Your task to perform on an android device: Go to display settings Image 0: 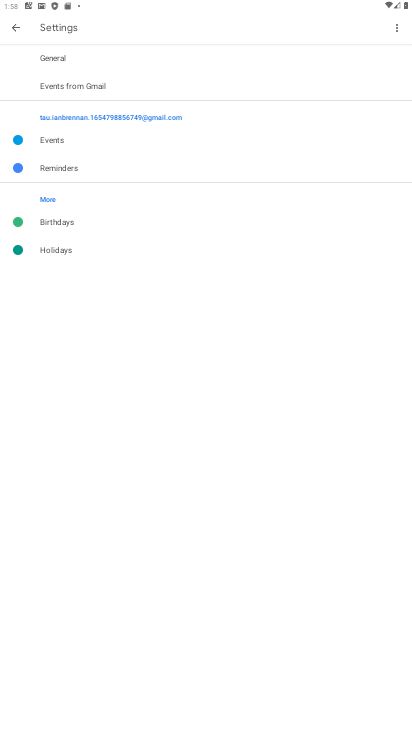
Step 0: press home button
Your task to perform on an android device: Go to display settings Image 1: 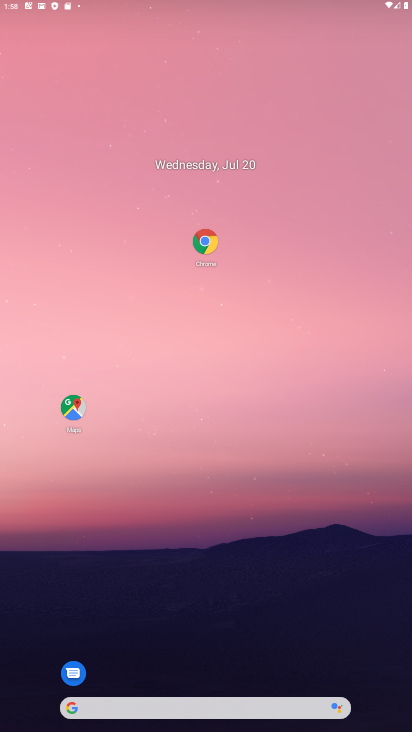
Step 1: drag from (195, 659) to (284, 91)
Your task to perform on an android device: Go to display settings Image 2: 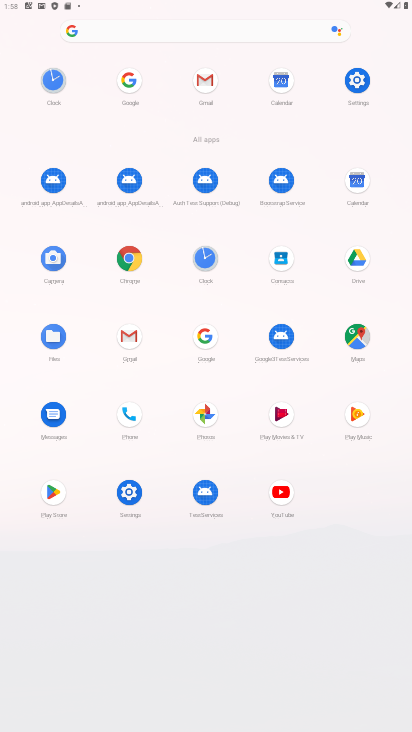
Step 2: click (354, 78)
Your task to perform on an android device: Go to display settings Image 3: 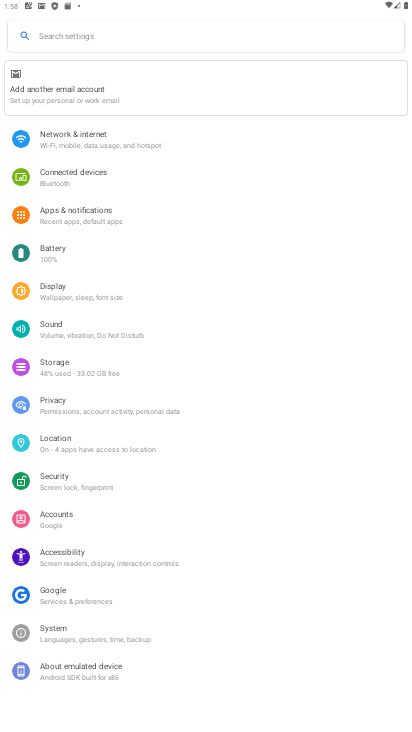
Step 3: click (82, 289)
Your task to perform on an android device: Go to display settings Image 4: 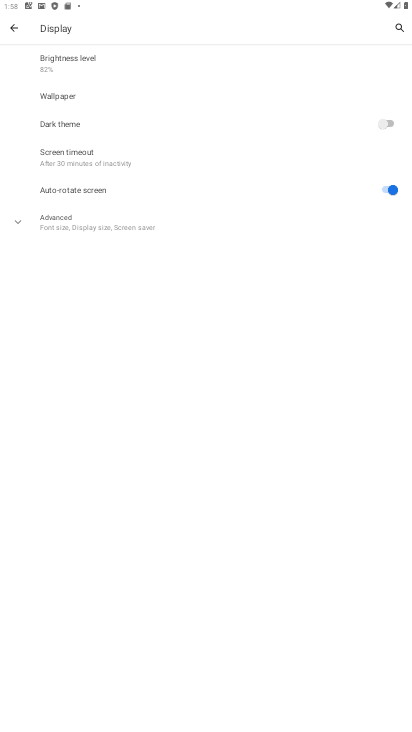
Step 4: task complete